Your task to perform on an android device: turn off notifications settings in the gmail app Image 0: 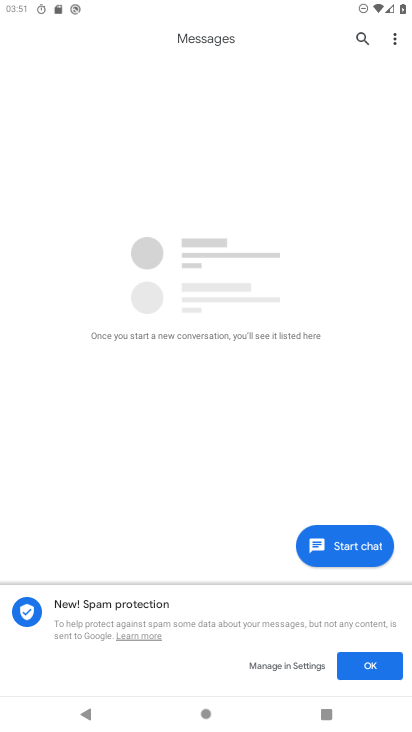
Step 0: press home button
Your task to perform on an android device: turn off notifications settings in the gmail app Image 1: 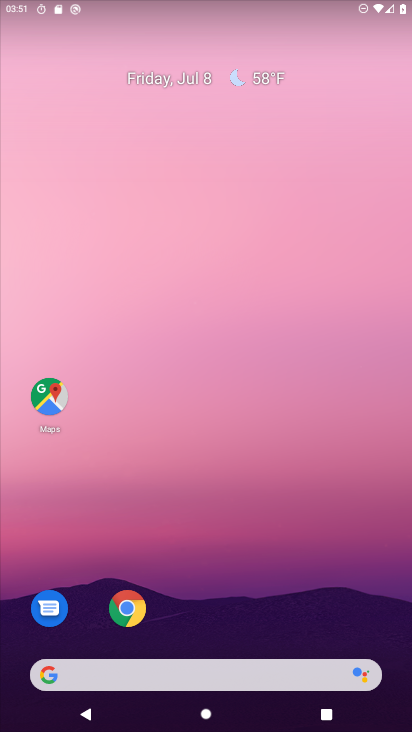
Step 1: drag from (232, 721) to (233, 276)
Your task to perform on an android device: turn off notifications settings in the gmail app Image 2: 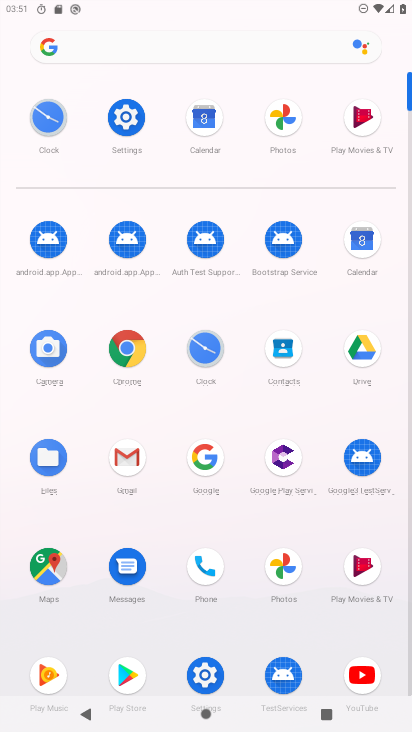
Step 2: click (129, 457)
Your task to perform on an android device: turn off notifications settings in the gmail app Image 3: 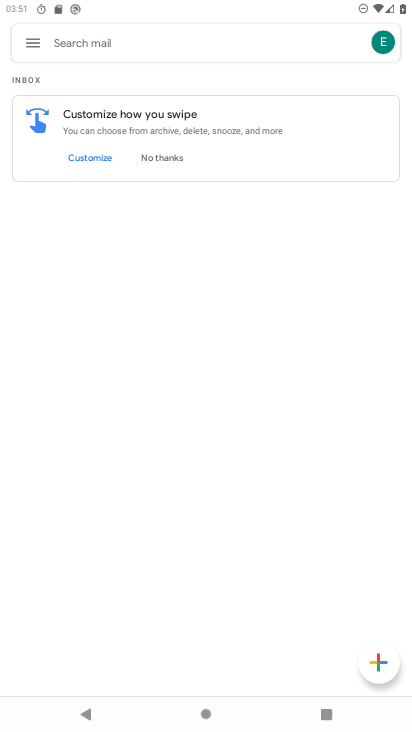
Step 3: click (35, 47)
Your task to perform on an android device: turn off notifications settings in the gmail app Image 4: 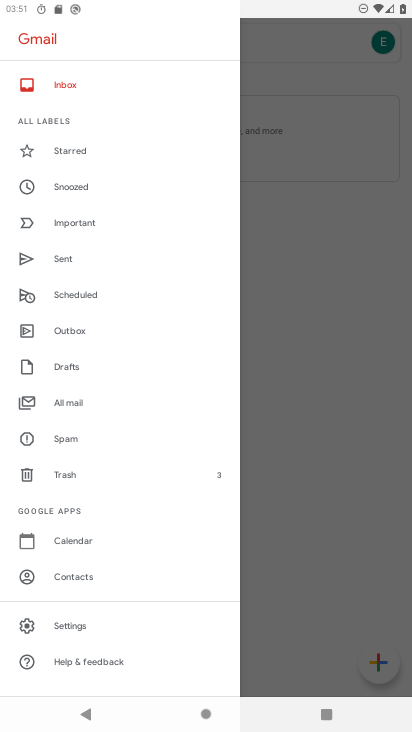
Step 4: click (67, 621)
Your task to perform on an android device: turn off notifications settings in the gmail app Image 5: 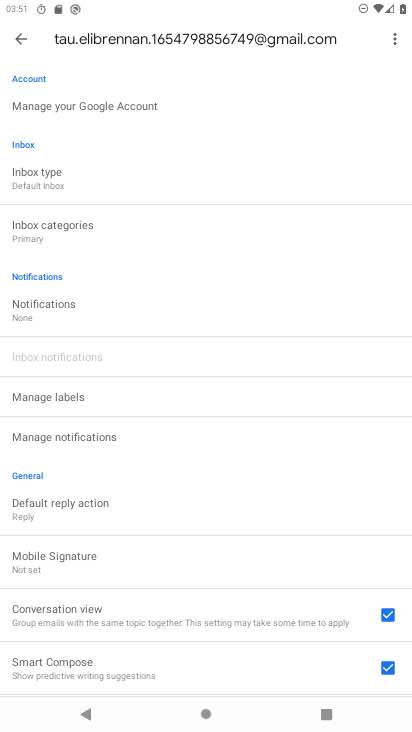
Step 5: task complete